Your task to perform on an android device: Search for Mexican restaurants on Maps Image 0: 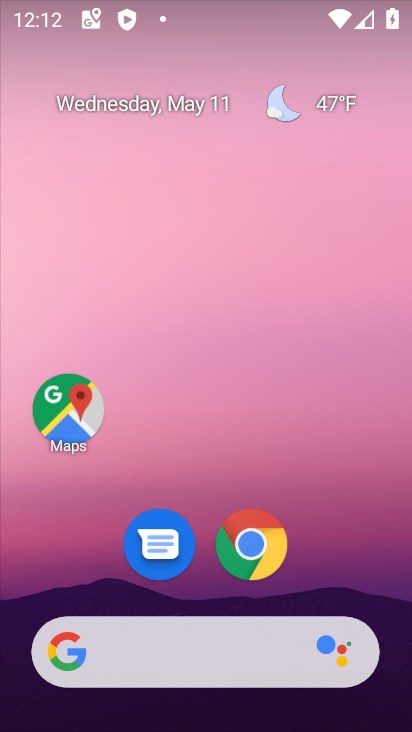
Step 0: click (67, 408)
Your task to perform on an android device: Search for Mexican restaurants on Maps Image 1: 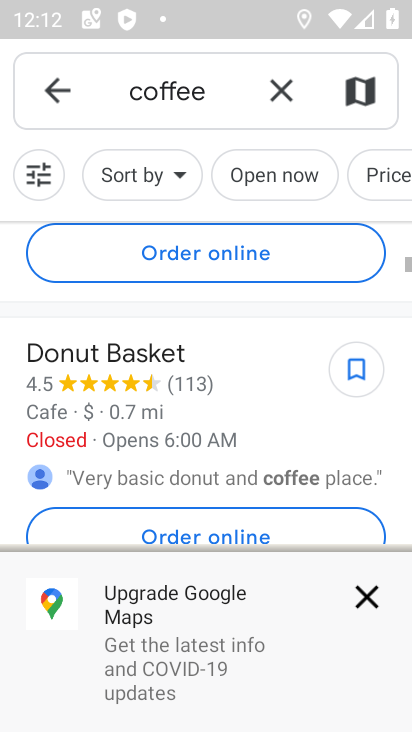
Step 1: click (276, 88)
Your task to perform on an android device: Search for Mexican restaurants on Maps Image 2: 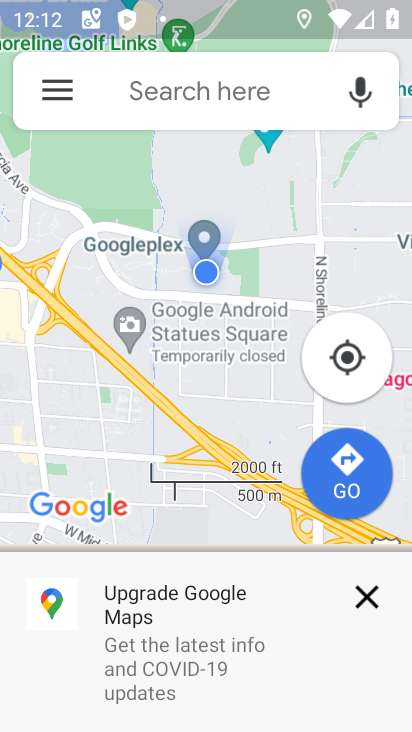
Step 2: click (205, 88)
Your task to perform on an android device: Search for Mexican restaurants on Maps Image 3: 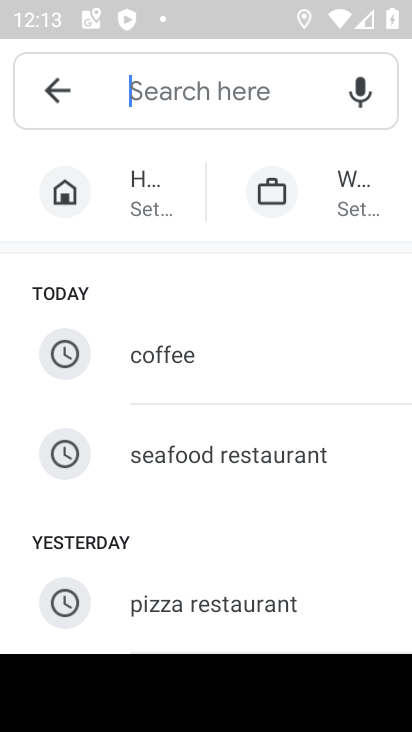
Step 3: type "mexican restaurants"
Your task to perform on an android device: Search for Mexican restaurants on Maps Image 4: 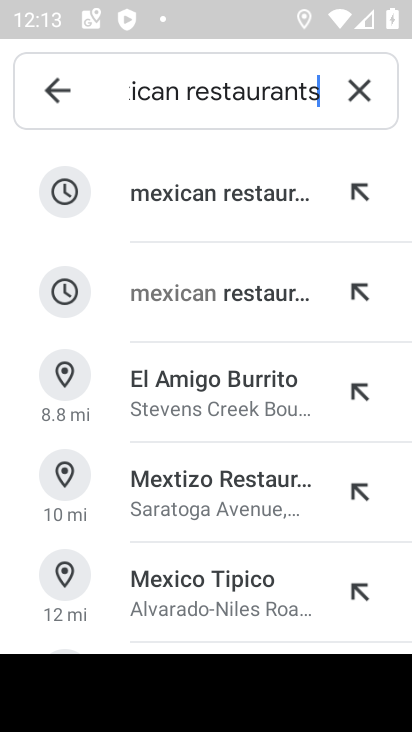
Step 4: click (163, 187)
Your task to perform on an android device: Search for Mexican restaurants on Maps Image 5: 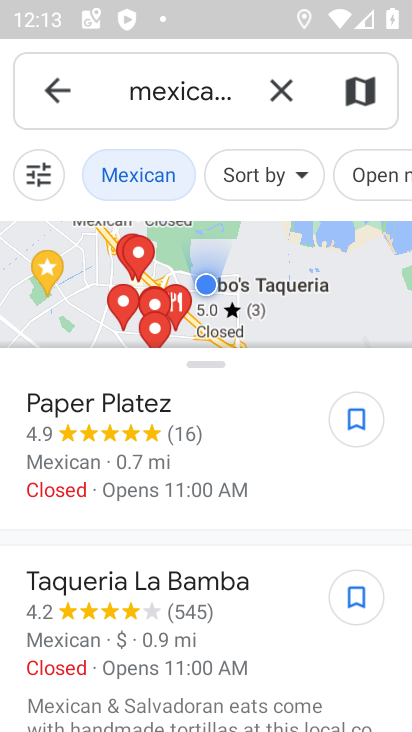
Step 5: task complete